Your task to perform on an android device: open app "DoorDash - Dasher" (install if not already installed) and go to login screen Image 0: 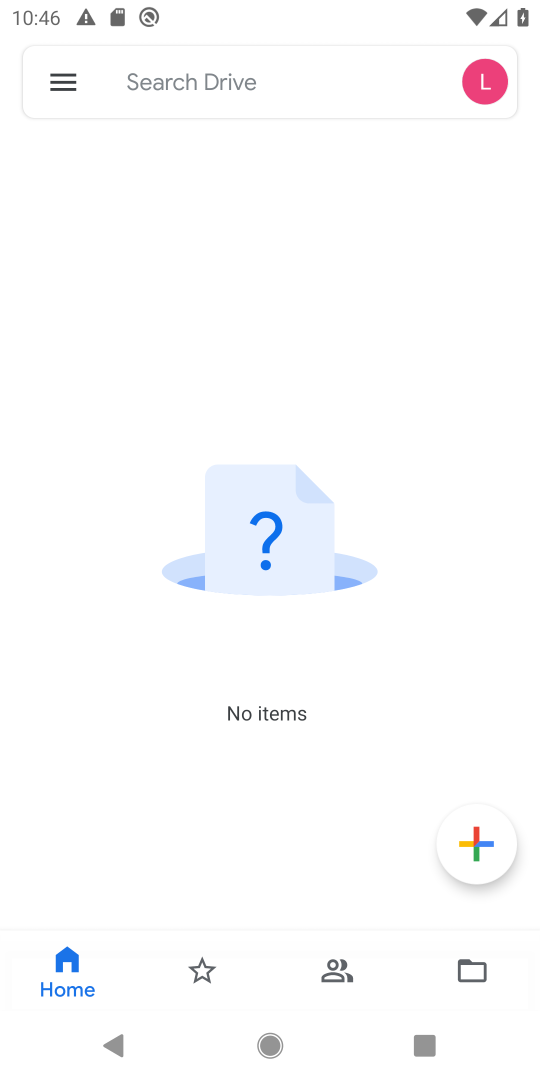
Step 0: press home button
Your task to perform on an android device: open app "DoorDash - Dasher" (install if not already installed) and go to login screen Image 1: 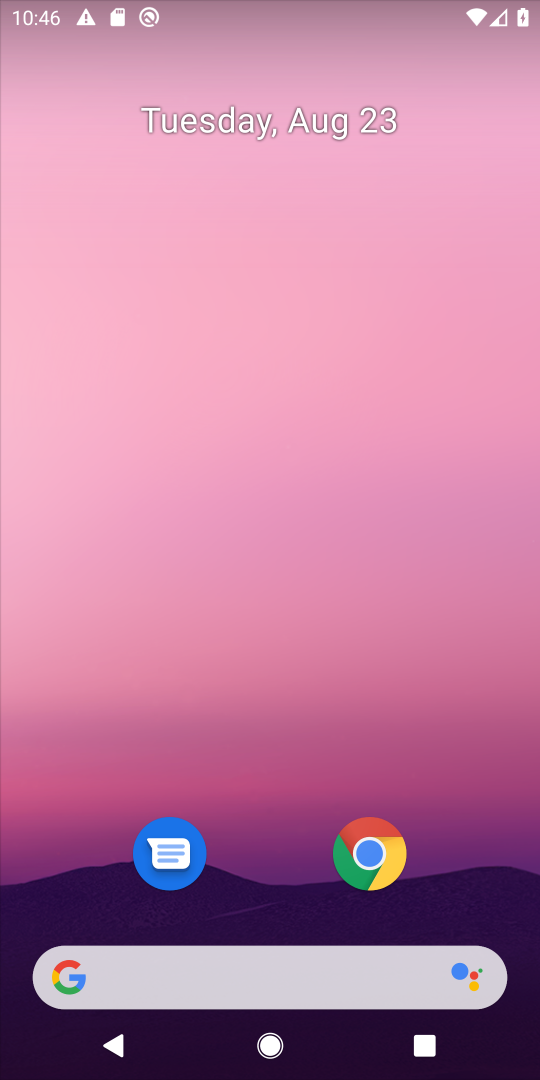
Step 1: drag from (234, 741) to (439, 17)
Your task to perform on an android device: open app "DoorDash - Dasher" (install if not already installed) and go to login screen Image 2: 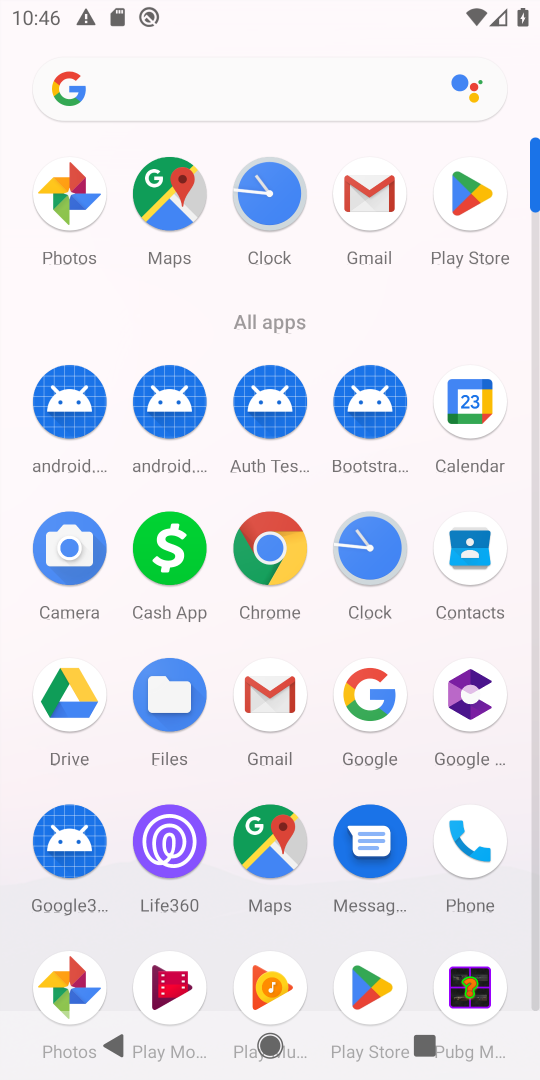
Step 2: click (472, 193)
Your task to perform on an android device: open app "DoorDash - Dasher" (install if not already installed) and go to login screen Image 3: 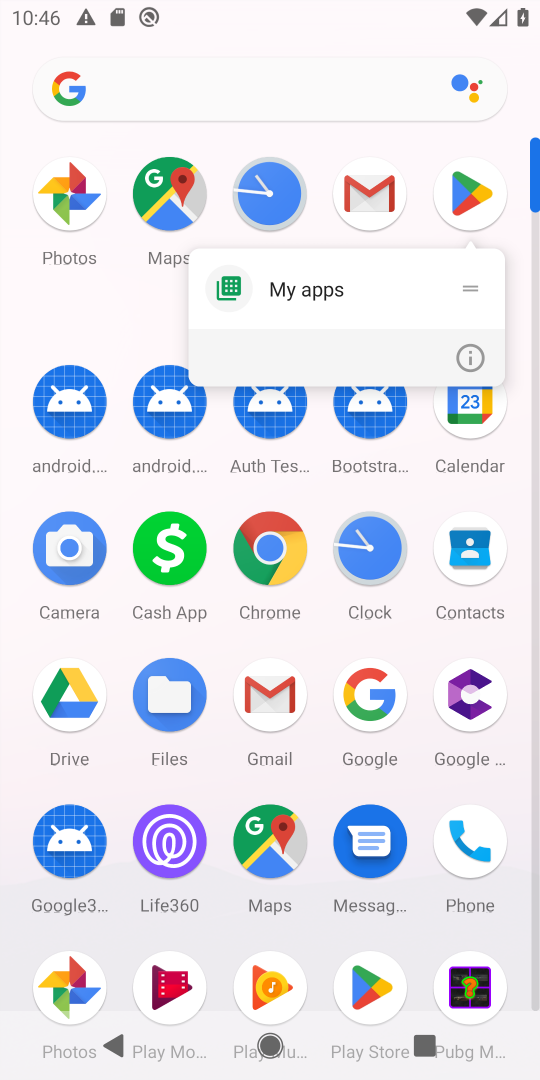
Step 3: click (472, 188)
Your task to perform on an android device: open app "DoorDash - Dasher" (install if not already installed) and go to login screen Image 4: 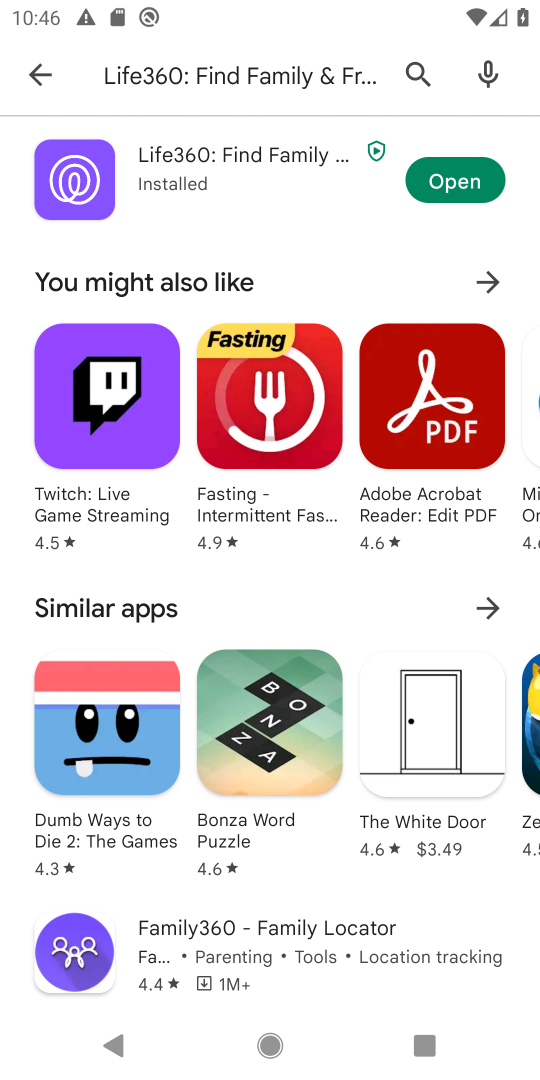
Step 4: press back button
Your task to perform on an android device: open app "DoorDash - Dasher" (install if not already installed) and go to login screen Image 5: 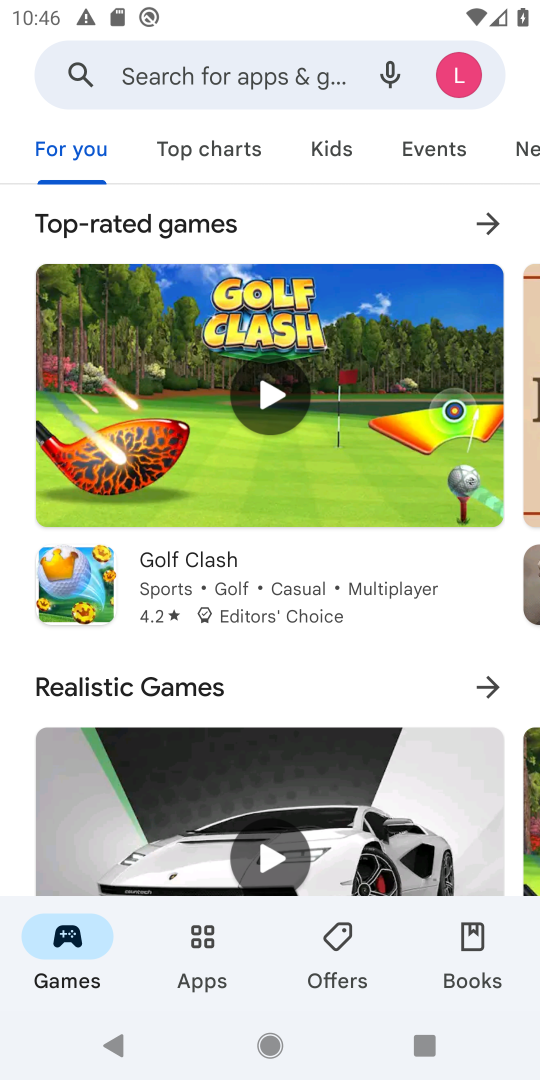
Step 5: click (296, 85)
Your task to perform on an android device: open app "DoorDash - Dasher" (install if not already installed) and go to login screen Image 6: 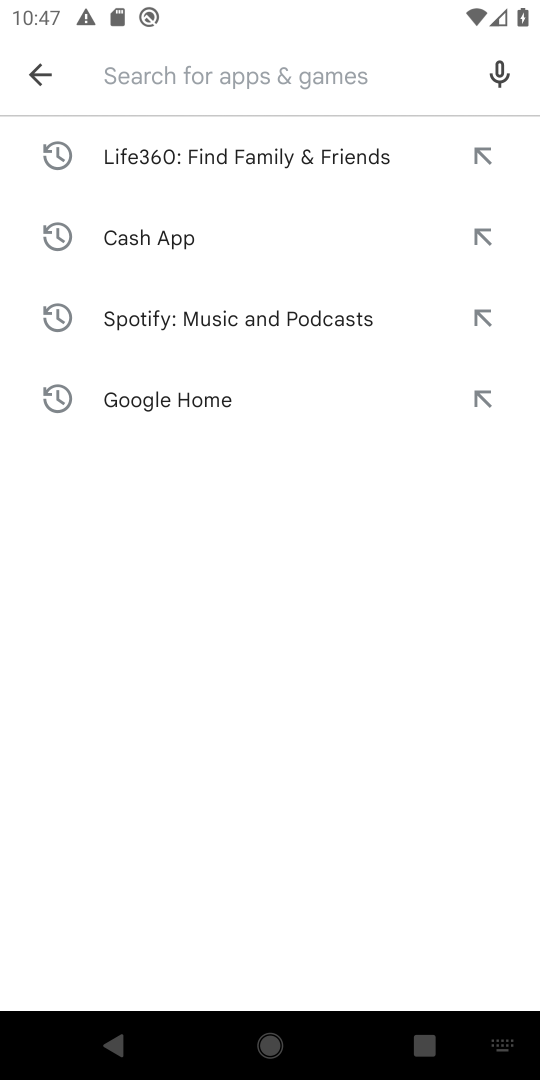
Step 6: type "DoorDash - Dasher"
Your task to perform on an android device: open app "DoorDash - Dasher" (install if not already installed) and go to login screen Image 7: 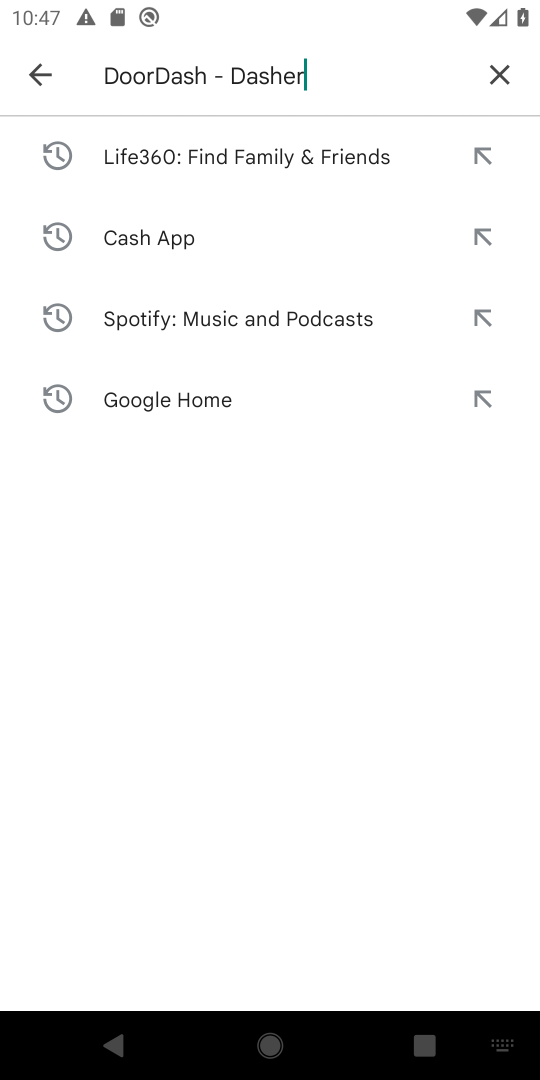
Step 7: press enter
Your task to perform on an android device: open app "DoorDash - Dasher" (install if not already installed) and go to login screen Image 8: 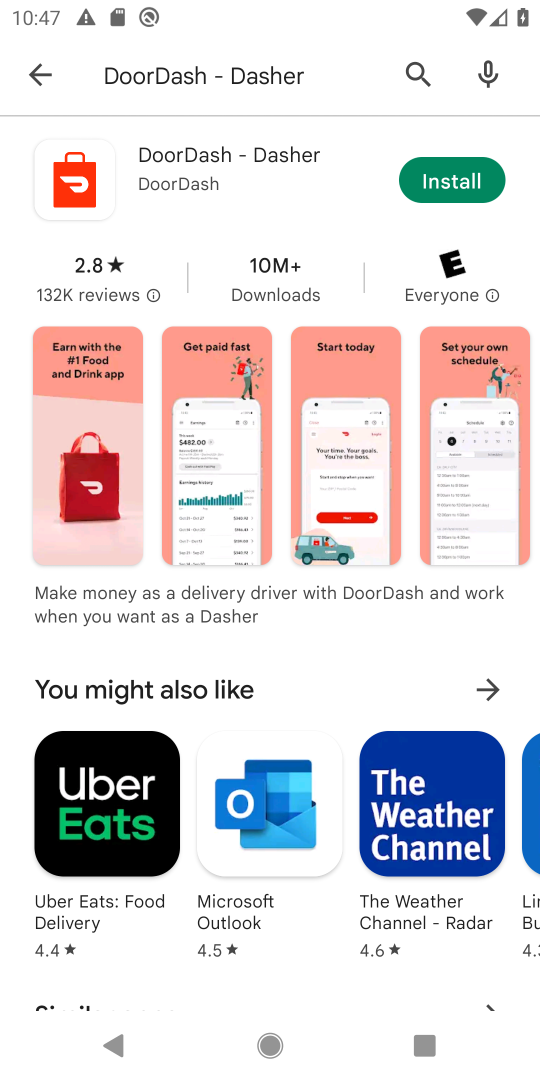
Step 8: click (440, 193)
Your task to perform on an android device: open app "DoorDash - Dasher" (install if not already installed) and go to login screen Image 9: 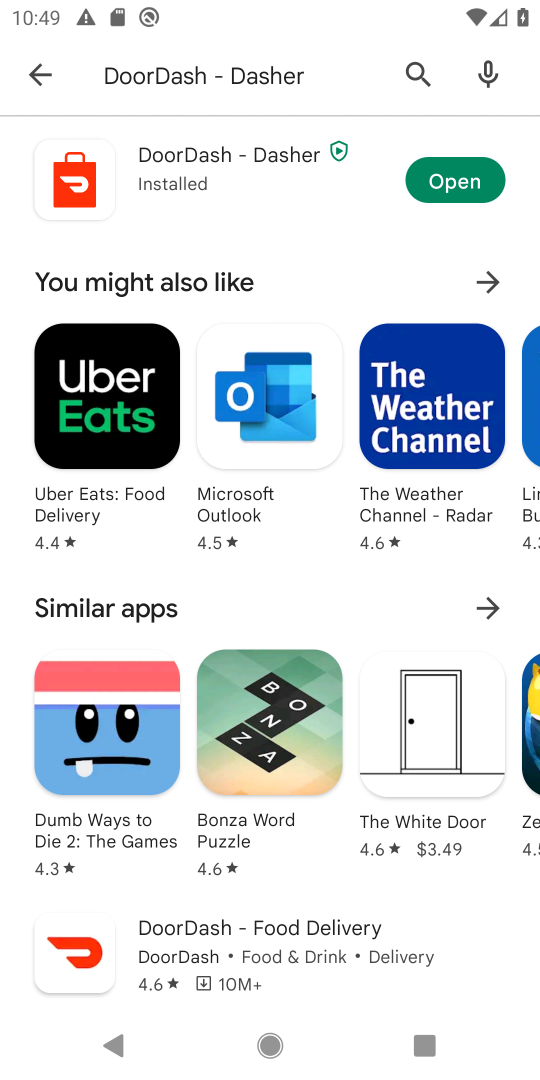
Step 9: click (433, 192)
Your task to perform on an android device: open app "DoorDash - Dasher" (install if not already installed) and go to login screen Image 10: 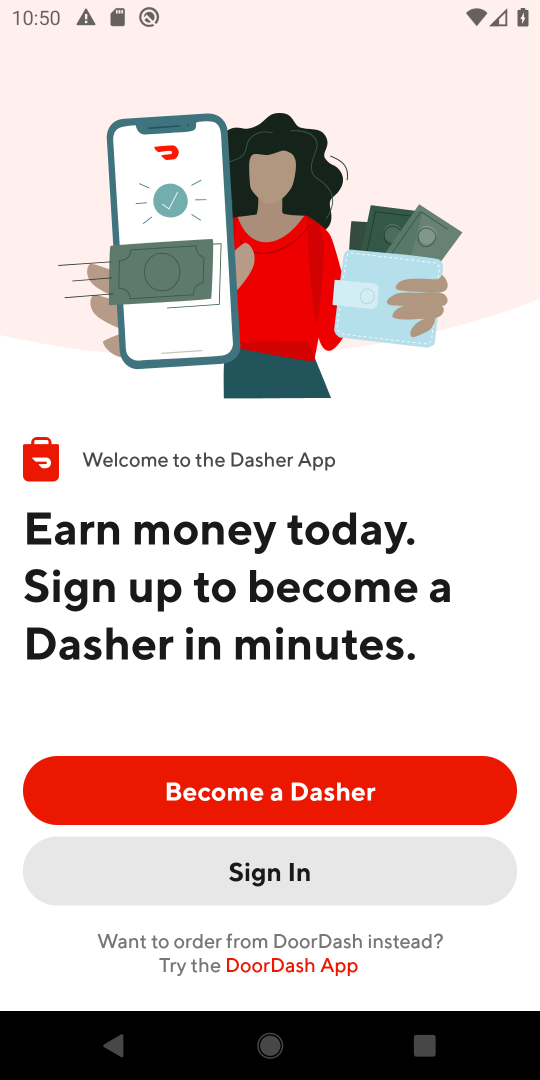
Step 10: task complete